Your task to perform on an android device: stop showing notifications on the lock screen Image 0: 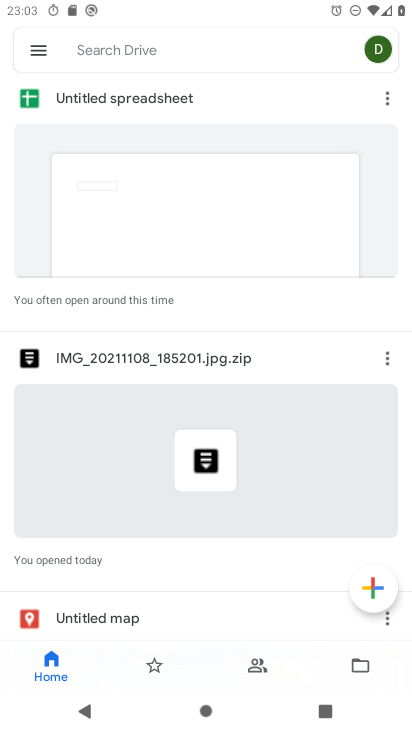
Step 0: press home button
Your task to perform on an android device: stop showing notifications on the lock screen Image 1: 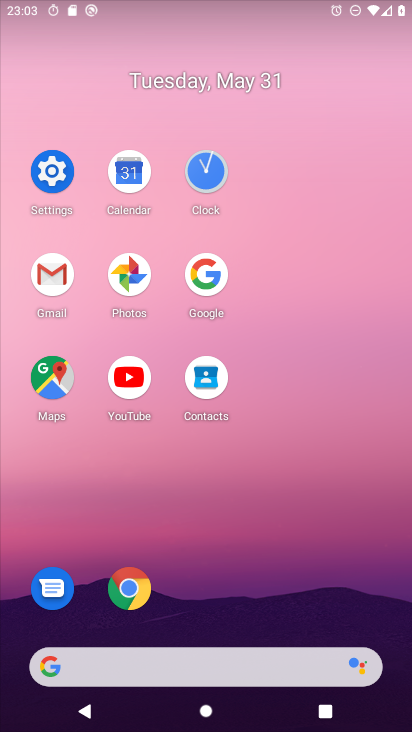
Step 1: click (59, 176)
Your task to perform on an android device: stop showing notifications on the lock screen Image 2: 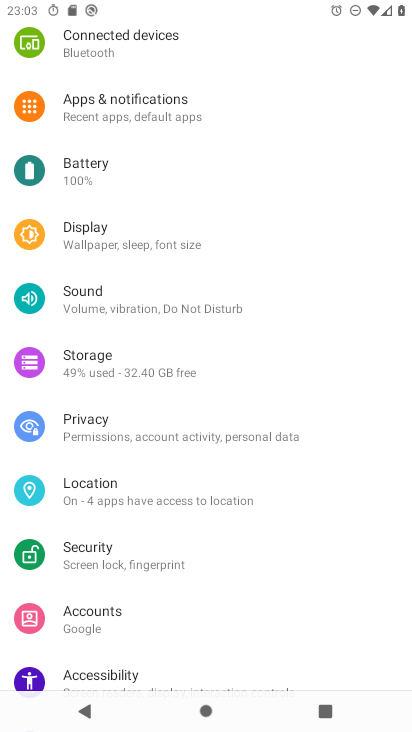
Step 2: click (161, 106)
Your task to perform on an android device: stop showing notifications on the lock screen Image 3: 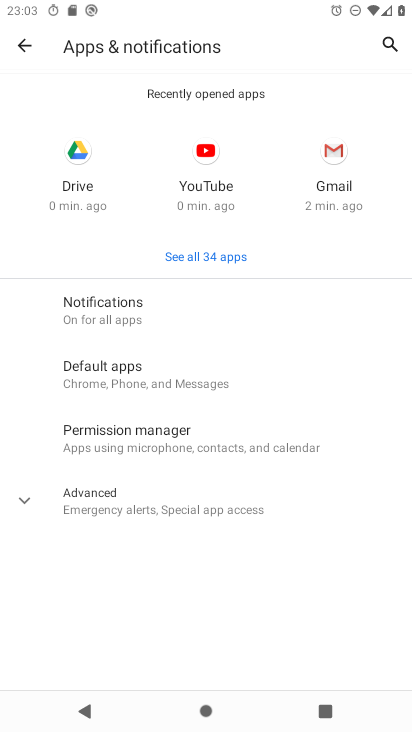
Step 3: click (189, 313)
Your task to perform on an android device: stop showing notifications on the lock screen Image 4: 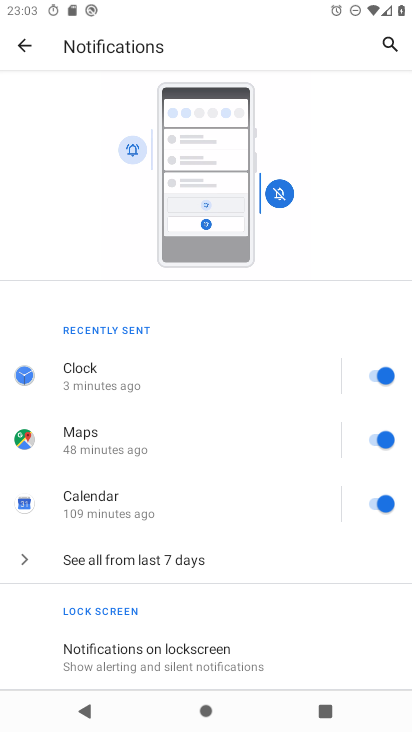
Step 4: click (185, 649)
Your task to perform on an android device: stop showing notifications on the lock screen Image 5: 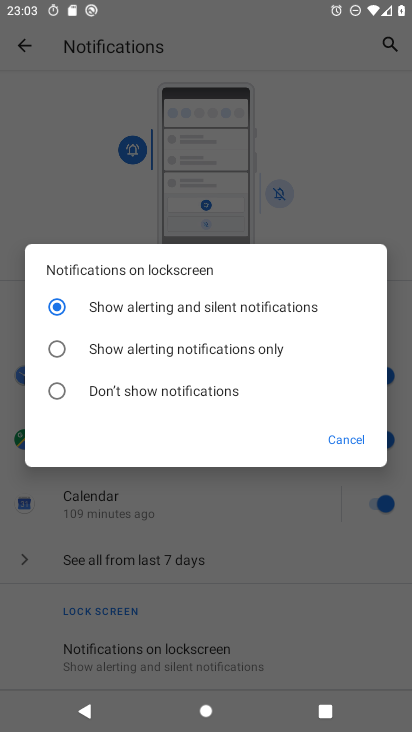
Step 5: click (108, 394)
Your task to perform on an android device: stop showing notifications on the lock screen Image 6: 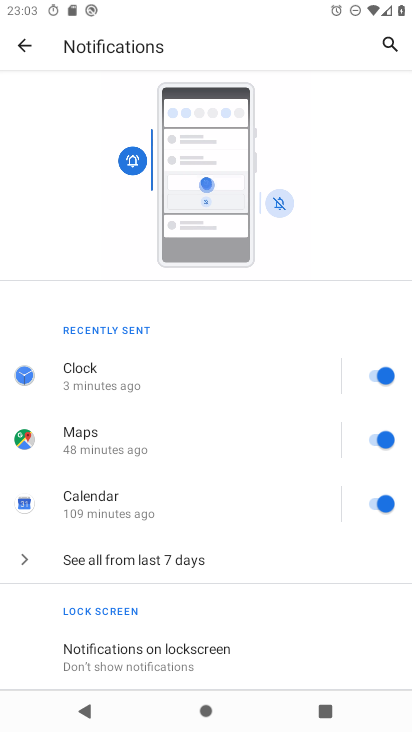
Step 6: task complete